Your task to perform on an android device: all mails in gmail Image 0: 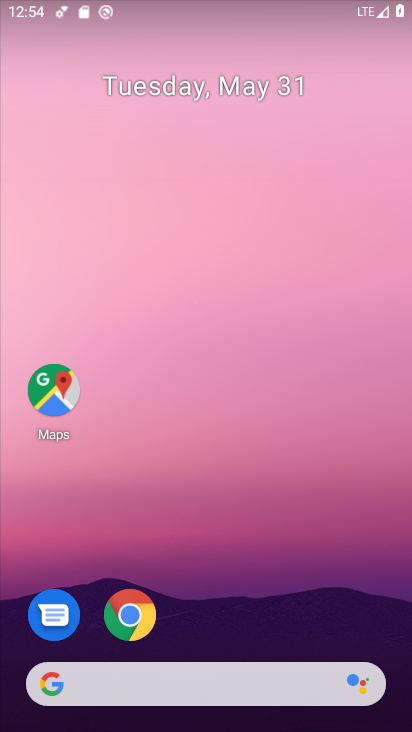
Step 0: drag from (216, 622) to (239, 564)
Your task to perform on an android device: all mails in gmail Image 1: 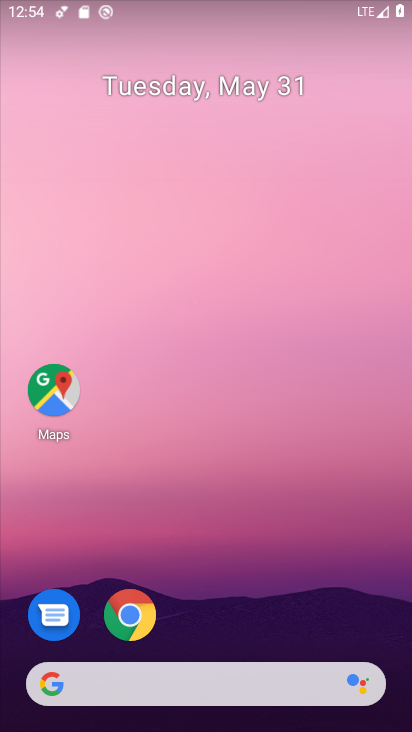
Step 1: drag from (165, 650) to (171, 161)
Your task to perform on an android device: all mails in gmail Image 2: 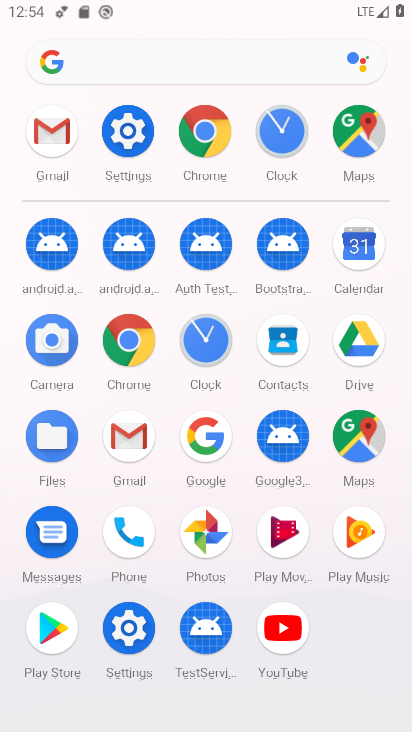
Step 2: click (136, 442)
Your task to perform on an android device: all mails in gmail Image 3: 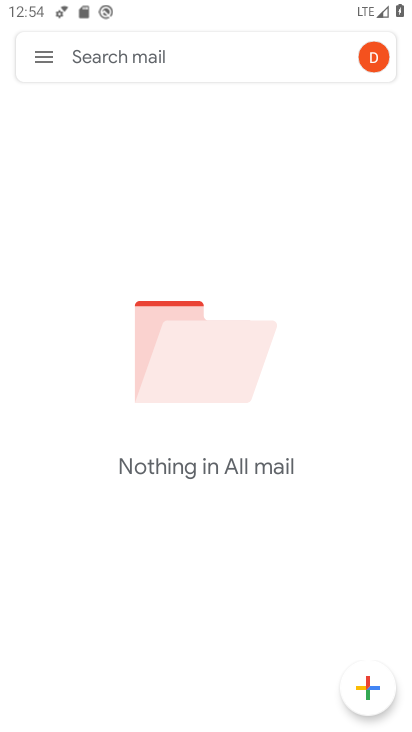
Step 3: task complete